Your task to perform on an android device: Is it going to rain this weekend? Image 0: 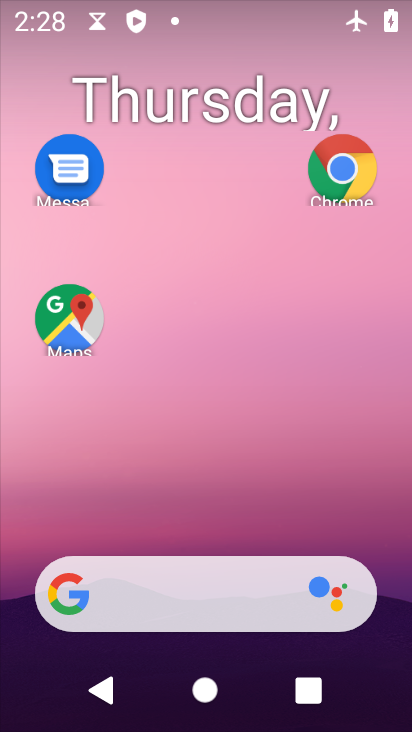
Step 0: click (220, 615)
Your task to perform on an android device: Is it going to rain this weekend? Image 1: 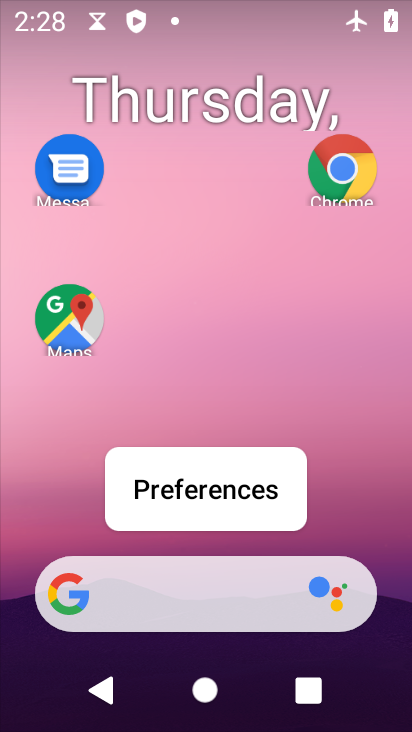
Step 1: click (210, 599)
Your task to perform on an android device: Is it going to rain this weekend? Image 2: 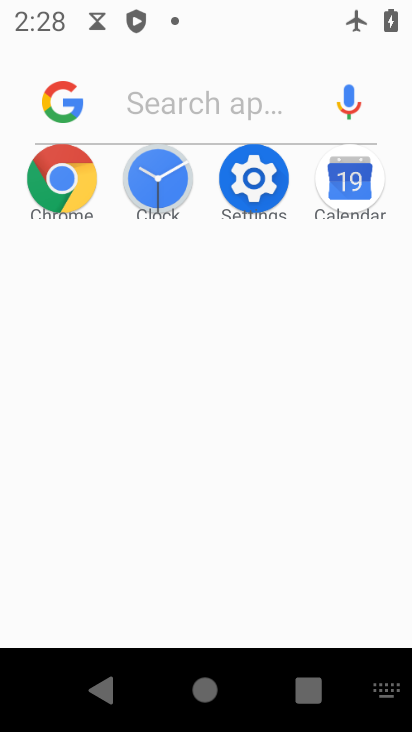
Step 2: click (194, 113)
Your task to perform on an android device: Is it going to rain this weekend? Image 3: 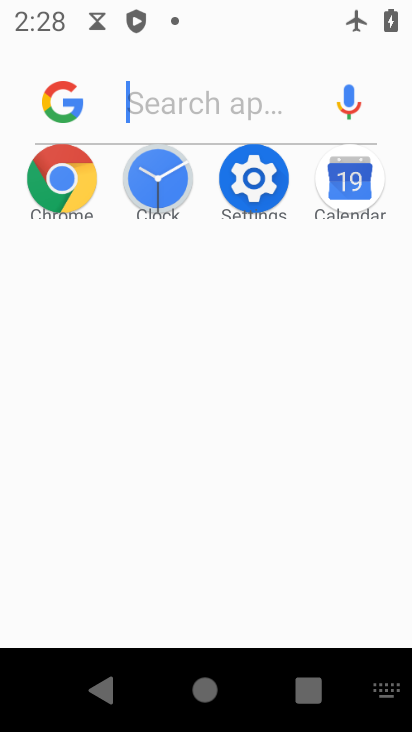
Step 3: press back button
Your task to perform on an android device: Is it going to rain this weekend? Image 4: 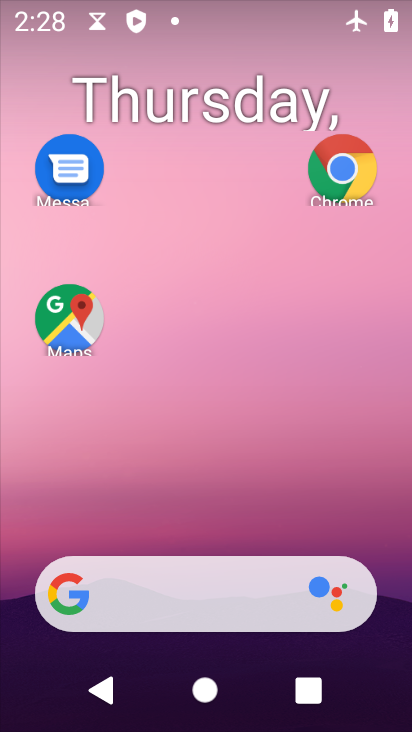
Step 4: click (125, 604)
Your task to perform on an android device: Is it going to rain this weekend? Image 5: 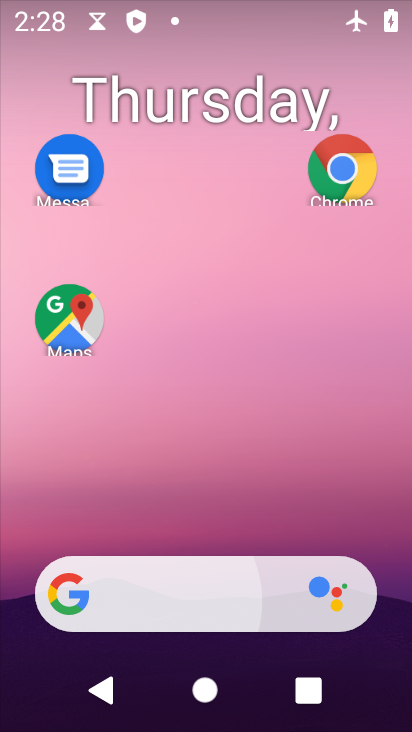
Step 5: click (171, 608)
Your task to perform on an android device: Is it going to rain this weekend? Image 6: 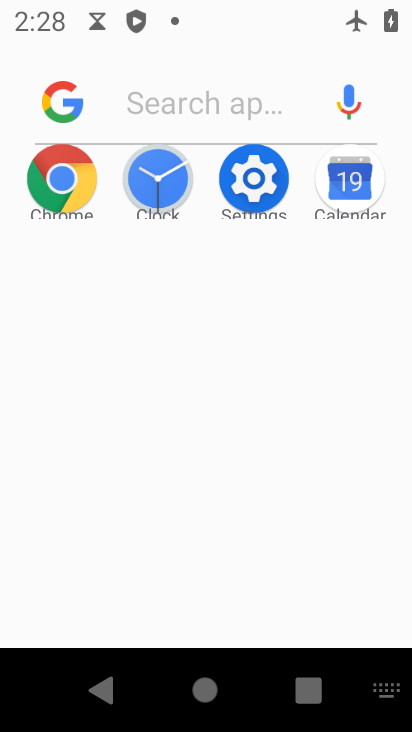
Step 6: click (222, 112)
Your task to perform on an android device: Is it going to rain this weekend? Image 7: 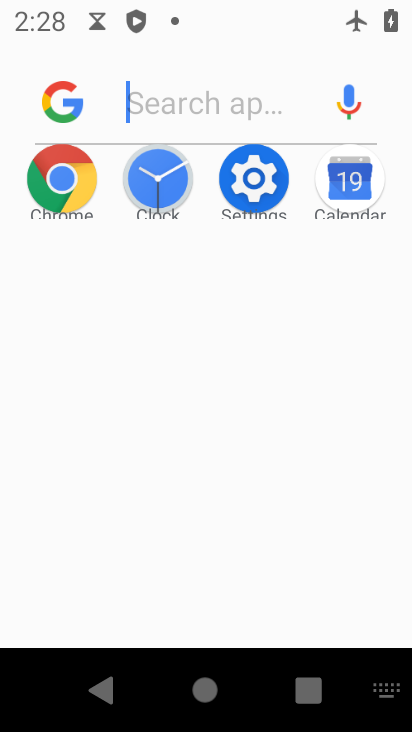
Step 7: press back button
Your task to perform on an android device: Is it going to rain this weekend? Image 8: 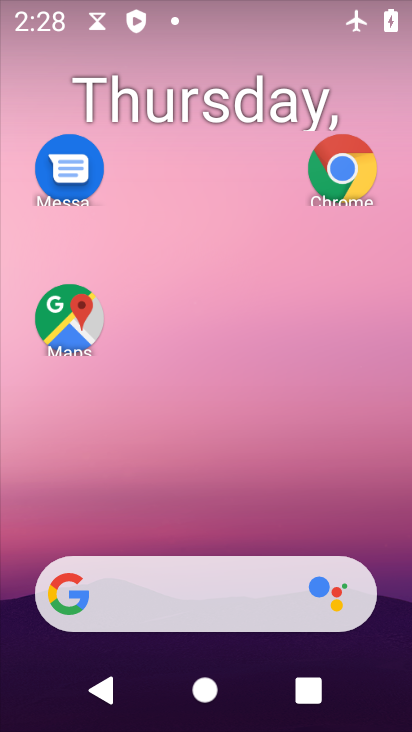
Step 8: drag from (209, 486) to (281, 137)
Your task to perform on an android device: Is it going to rain this weekend? Image 9: 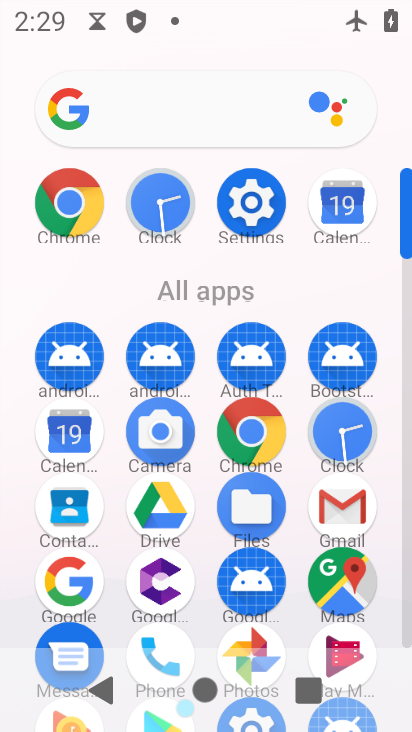
Step 9: click (79, 572)
Your task to perform on an android device: Is it going to rain this weekend? Image 10: 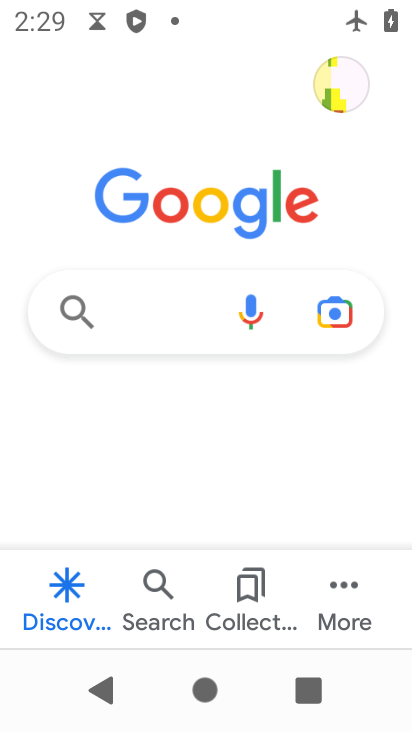
Step 10: click (171, 314)
Your task to perform on an android device: Is it going to rain this weekend? Image 11: 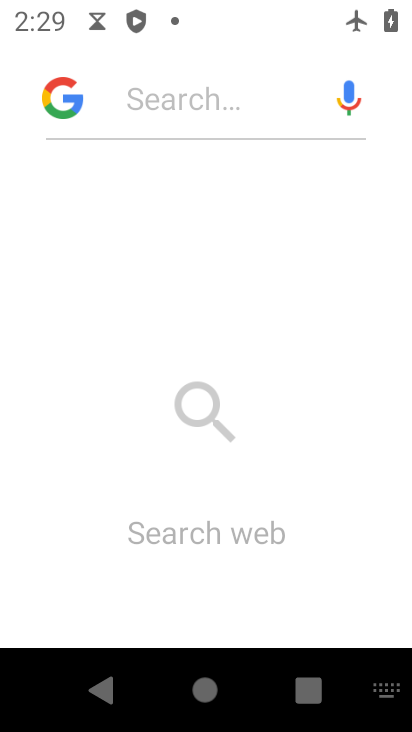
Step 11: click (221, 96)
Your task to perform on an android device: Is it going to rain this weekend? Image 12: 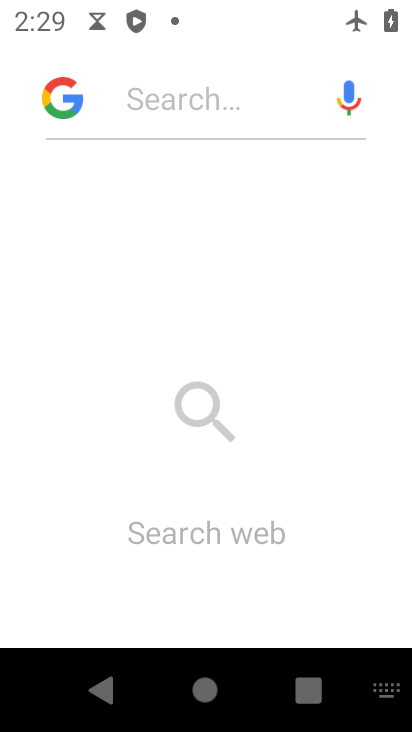
Step 12: type "weather"
Your task to perform on an android device: Is it going to rain this weekend? Image 13: 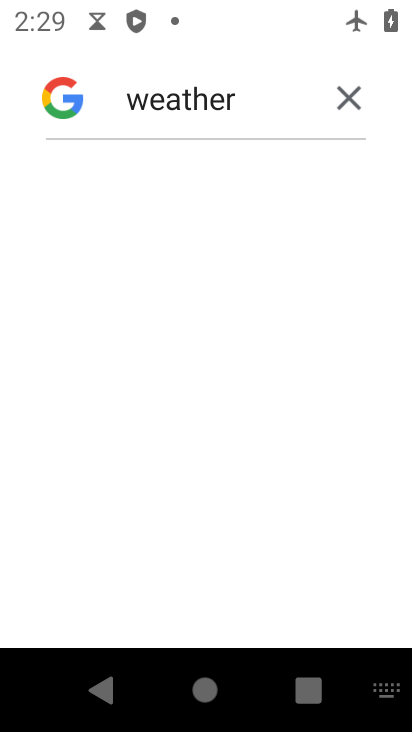
Step 13: click (274, 105)
Your task to perform on an android device: Is it going to rain this weekend? Image 14: 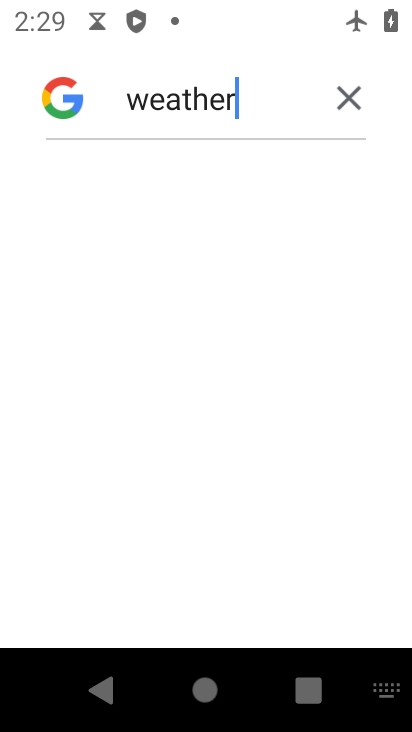
Step 14: task complete